Your task to perform on an android device: Open Google Maps Image 0: 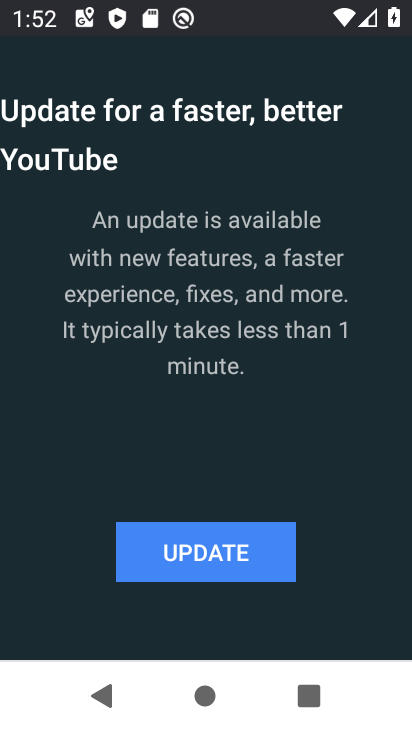
Step 0: press home button
Your task to perform on an android device: Open Google Maps Image 1: 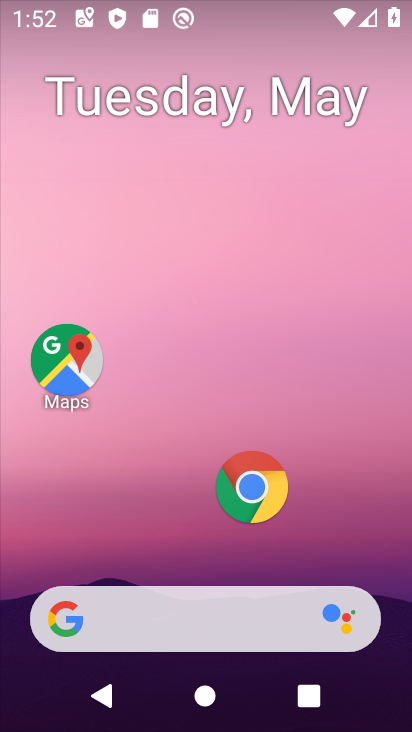
Step 1: click (68, 351)
Your task to perform on an android device: Open Google Maps Image 2: 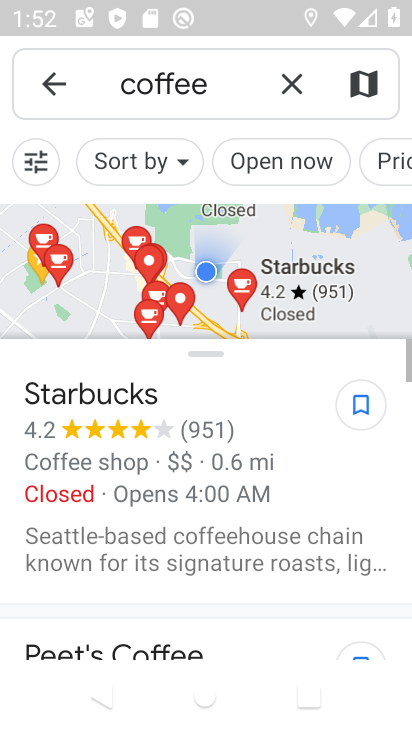
Step 2: click (288, 82)
Your task to perform on an android device: Open Google Maps Image 3: 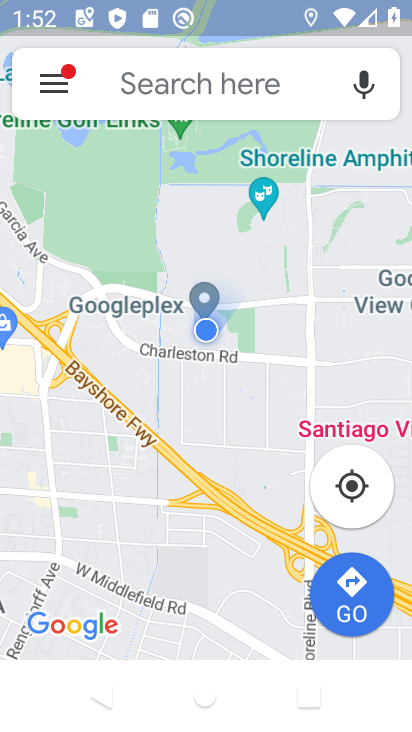
Step 3: task complete